Your task to perform on an android device: Search for Italian restaurants on Maps Image 0: 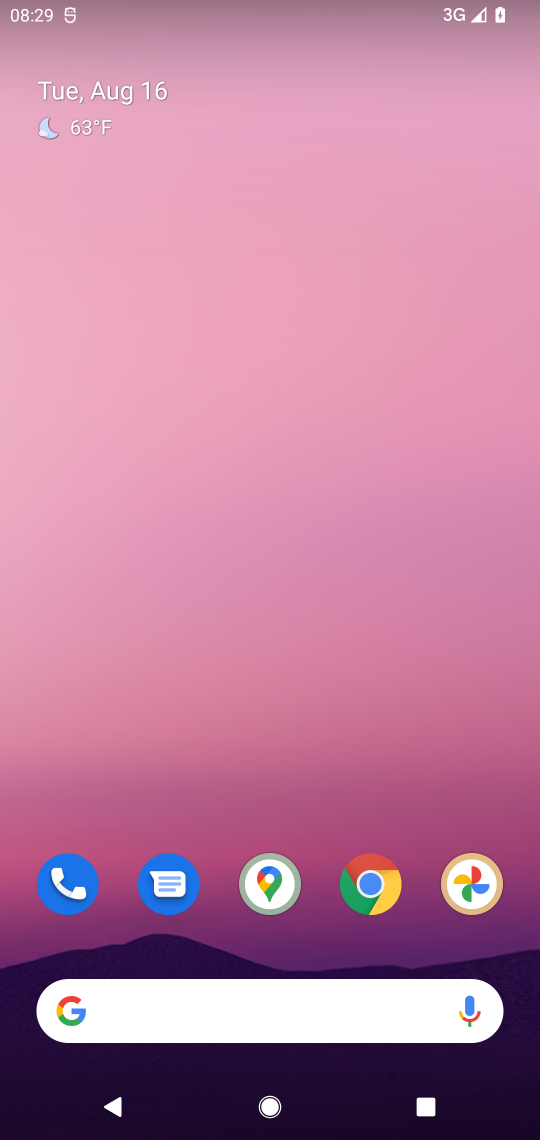
Step 0: press home button
Your task to perform on an android device: Search for Italian restaurants on Maps Image 1: 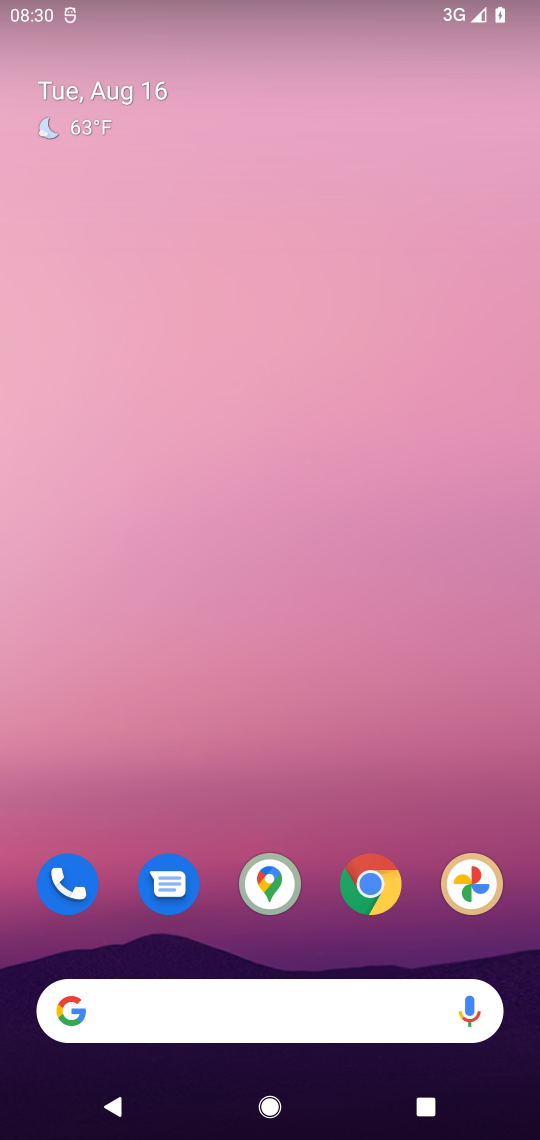
Step 1: drag from (319, 134) to (321, 42)
Your task to perform on an android device: Search for Italian restaurants on Maps Image 2: 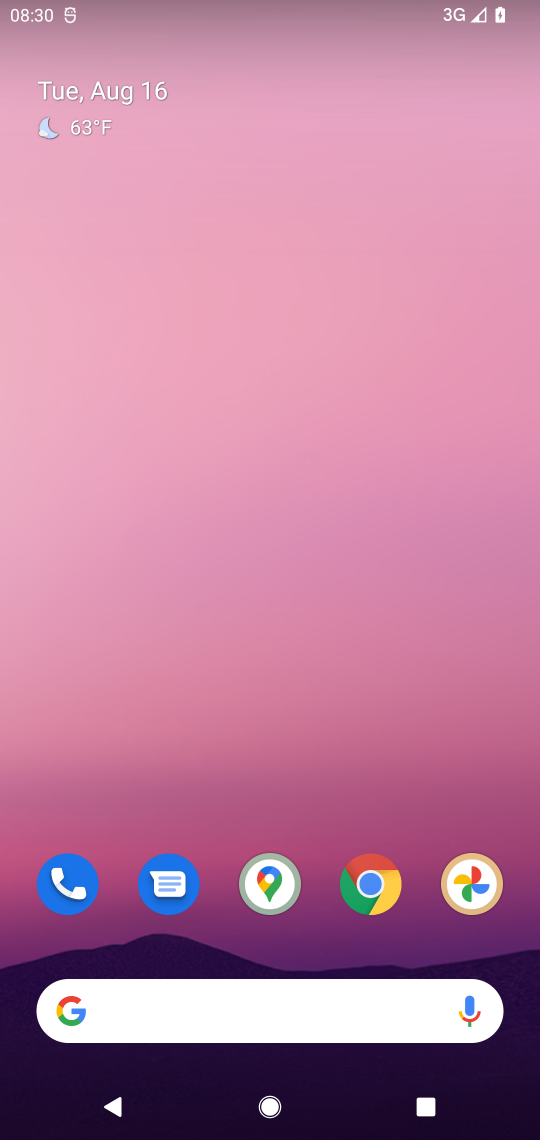
Step 2: press home button
Your task to perform on an android device: Search for Italian restaurants on Maps Image 3: 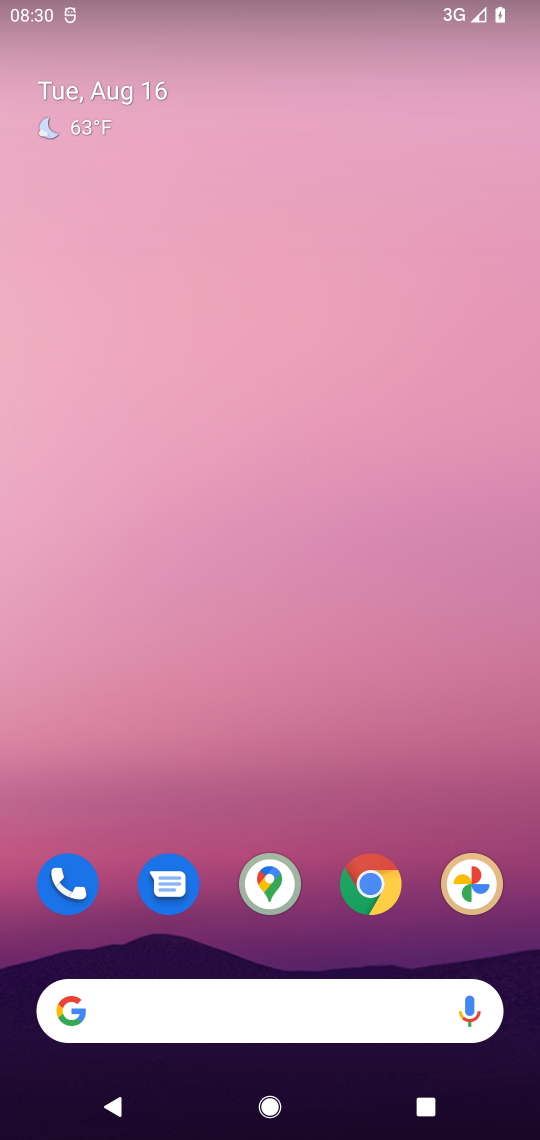
Step 3: drag from (348, 696) to (322, 145)
Your task to perform on an android device: Search for Italian restaurants on Maps Image 4: 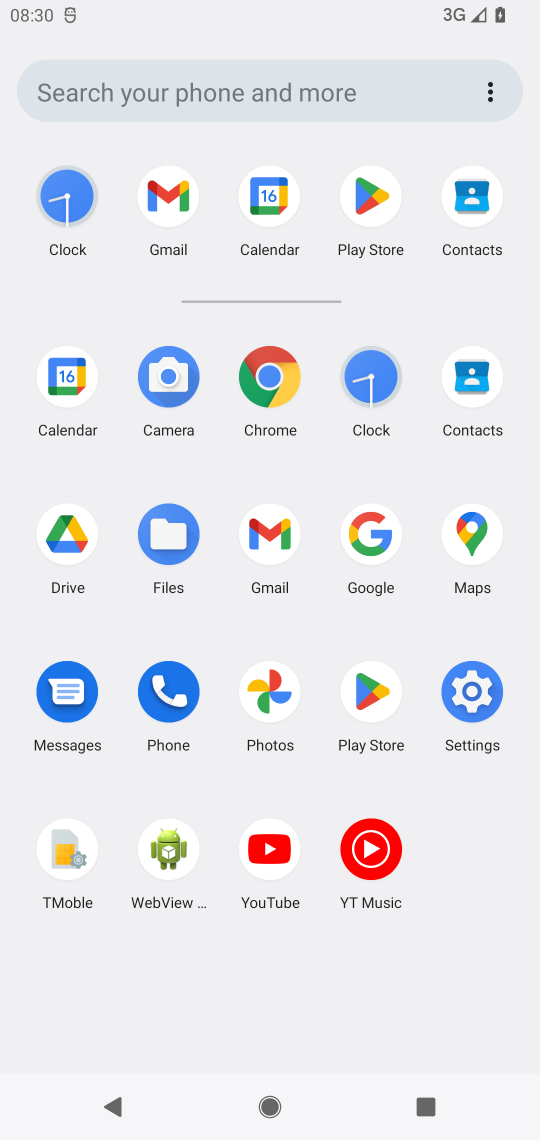
Step 4: click (484, 526)
Your task to perform on an android device: Search for Italian restaurants on Maps Image 5: 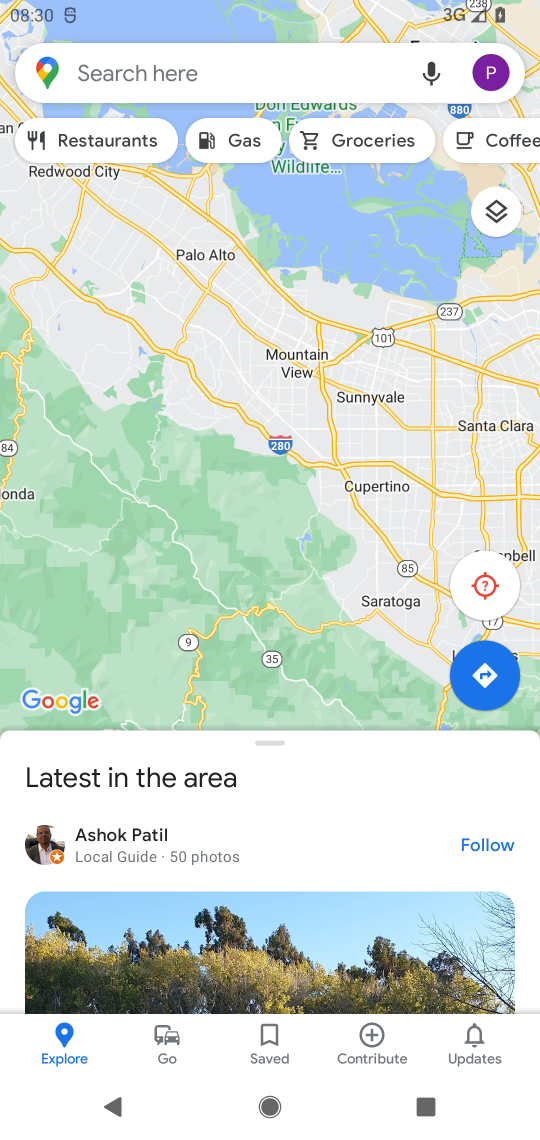
Step 5: click (144, 66)
Your task to perform on an android device: Search for Italian restaurants on Maps Image 6: 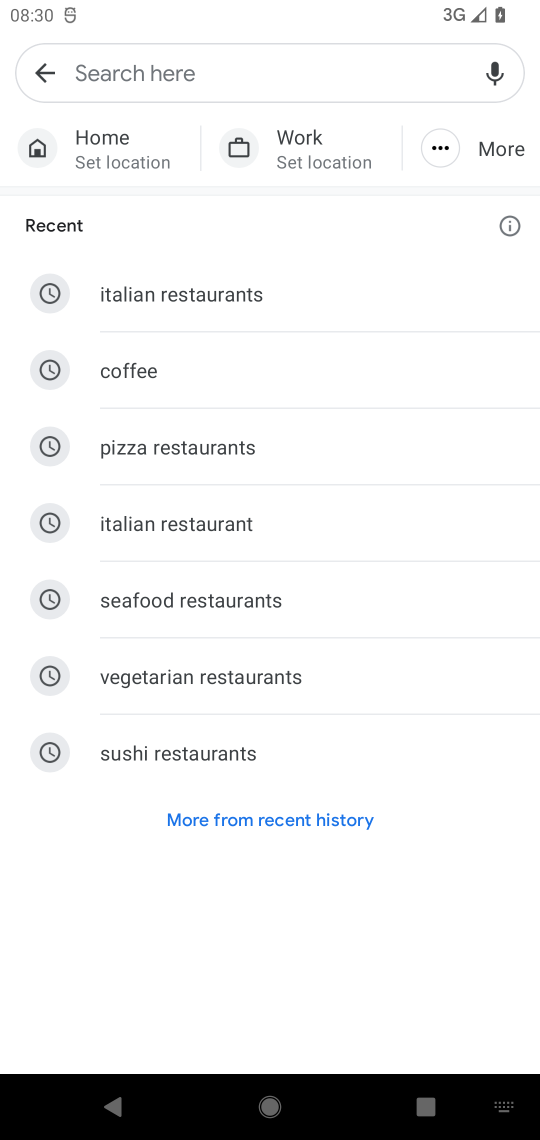
Step 6: click (193, 283)
Your task to perform on an android device: Search for Italian restaurants on Maps Image 7: 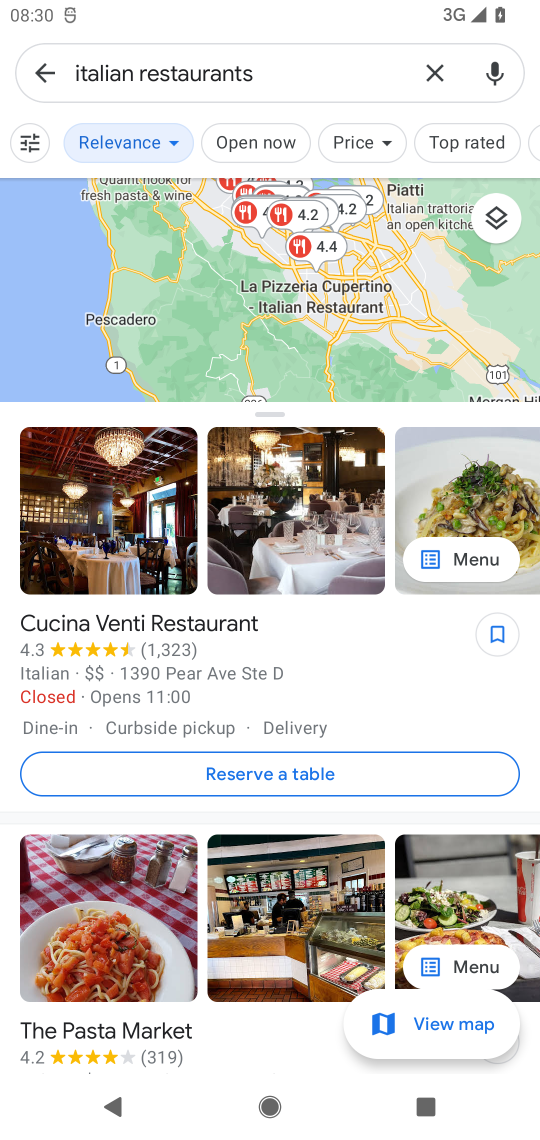
Step 7: task complete